Your task to perform on an android device: Open the phone app and click the voicemail tab. Image 0: 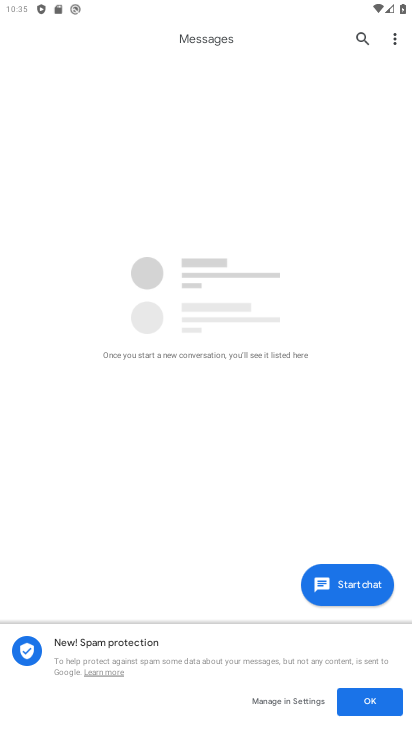
Step 0: press home button
Your task to perform on an android device: Open the phone app and click the voicemail tab. Image 1: 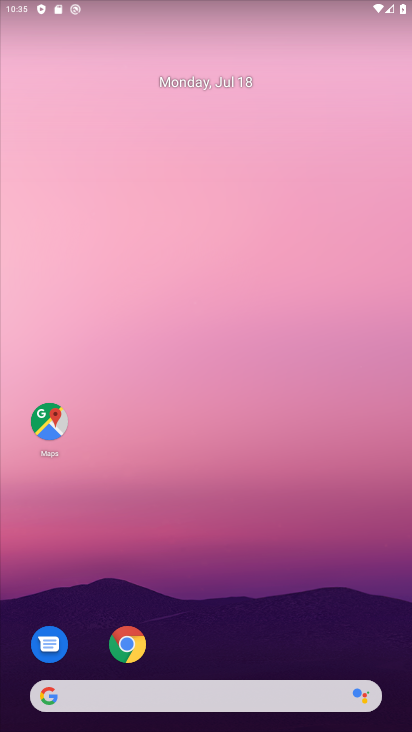
Step 1: drag from (244, 614) to (163, 154)
Your task to perform on an android device: Open the phone app and click the voicemail tab. Image 2: 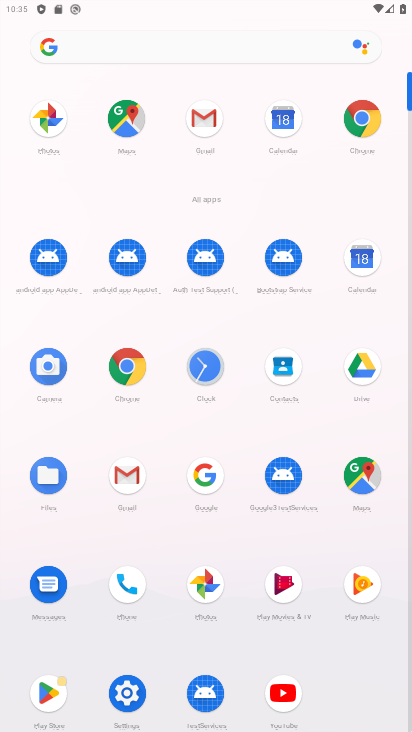
Step 2: click (143, 599)
Your task to perform on an android device: Open the phone app and click the voicemail tab. Image 3: 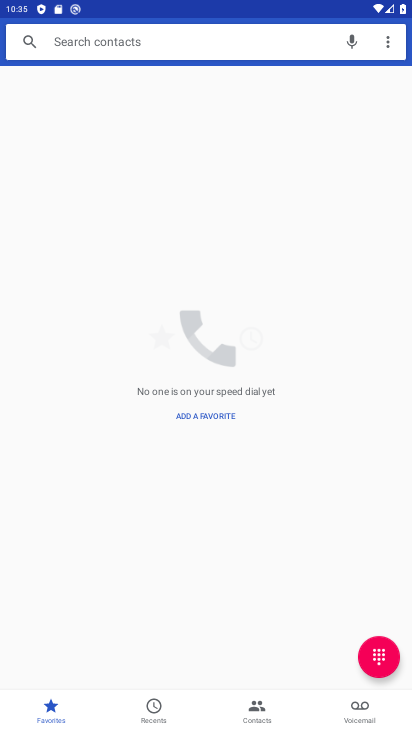
Step 3: click (367, 718)
Your task to perform on an android device: Open the phone app and click the voicemail tab. Image 4: 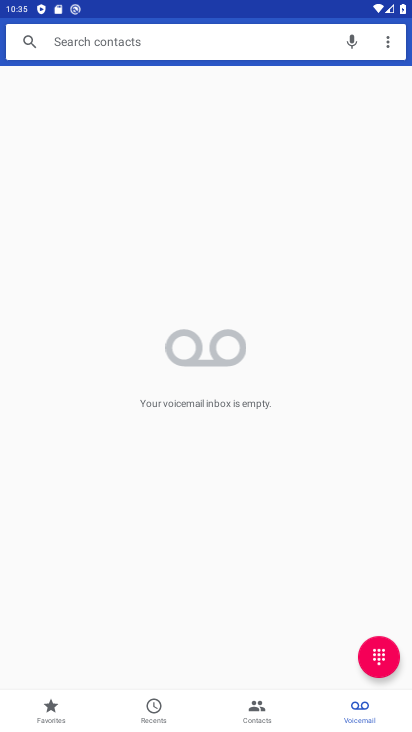
Step 4: task complete